Your task to perform on an android device: Open Google Maps and go to "Timeline" Image 0: 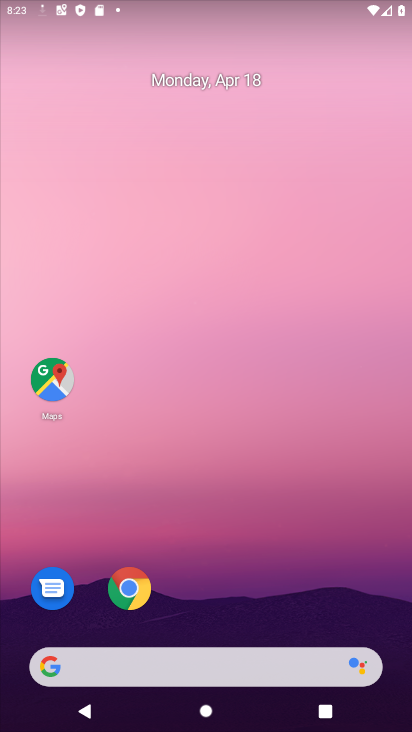
Step 0: click (58, 376)
Your task to perform on an android device: Open Google Maps and go to "Timeline" Image 1: 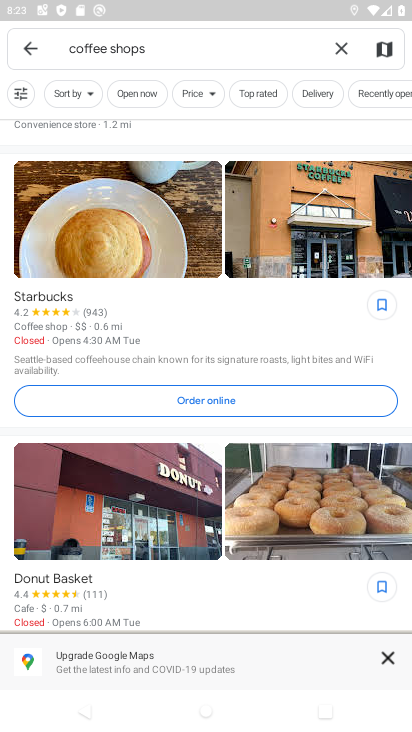
Step 1: click (33, 48)
Your task to perform on an android device: Open Google Maps and go to "Timeline" Image 2: 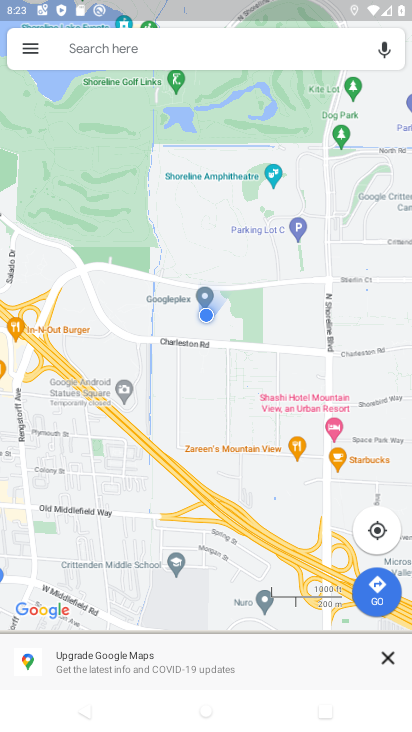
Step 2: click (33, 48)
Your task to perform on an android device: Open Google Maps and go to "Timeline" Image 3: 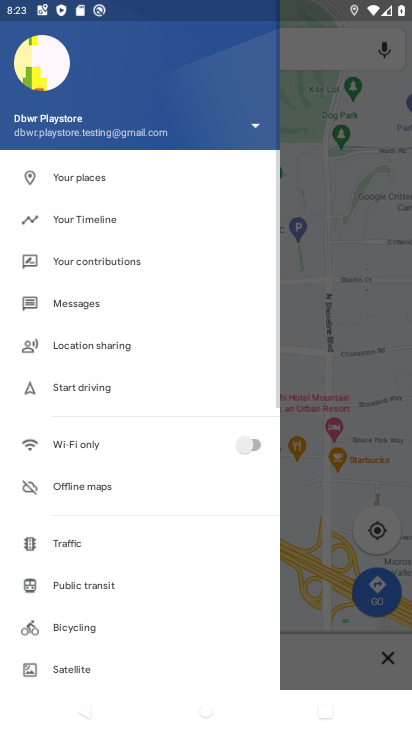
Step 3: click (85, 220)
Your task to perform on an android device: Open Google Maps and go to "Timeline" Image 4: 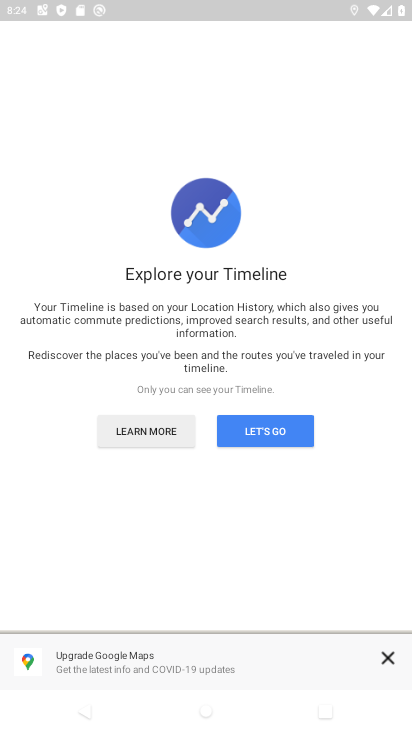
Step 4: task complete